Your task to perform on an android device: Do I have any events tomorrow? Image 0: 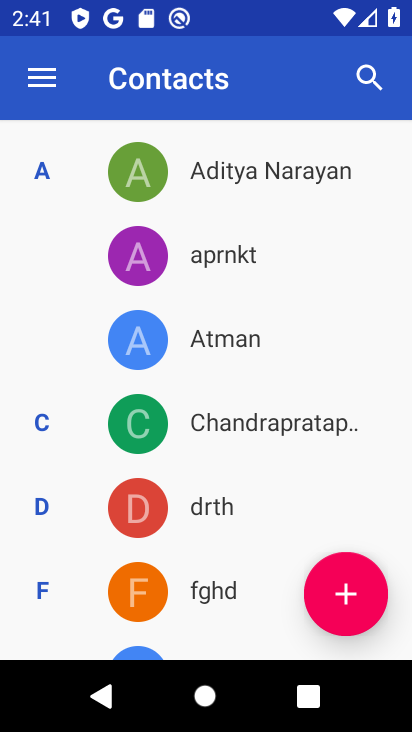
Step 0: press back button
Your task to perform on an android device: Do I have any events tomorrow? Image 1: 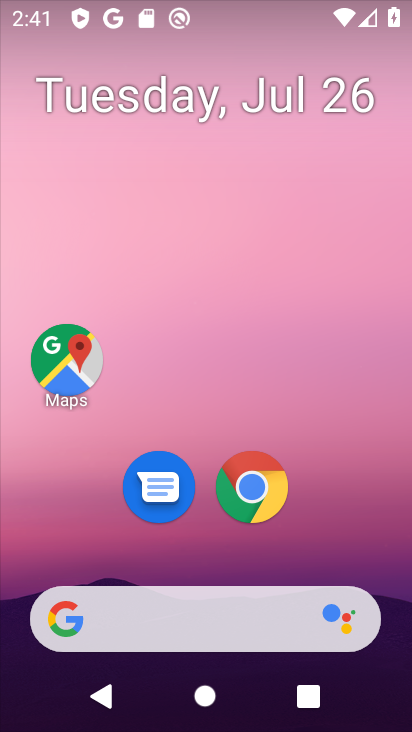
Step 1: drag from (205, 553) to (262, 18)
Your task to perform on an android device: Do I have any events tomorrow? Image 2: 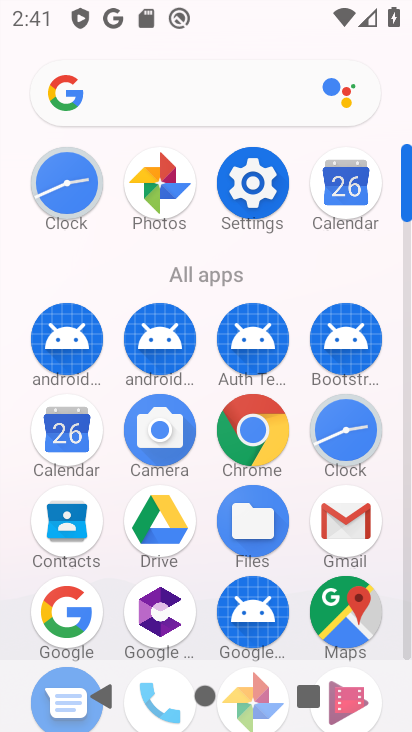
Step 2: click (61, 437)
Your task to perform on an android device: Do I have any events tomorrow? Image 3: 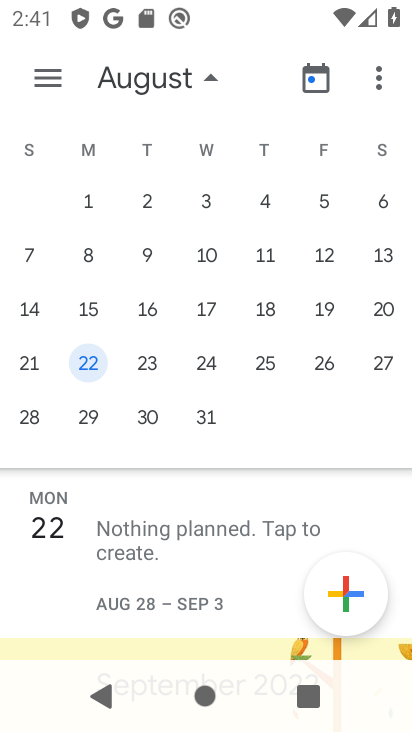
Step 3: drag from (36, 304) to (380, 301)
Your task to perform on an android device: Do I have any events tomorrow? Image 4: 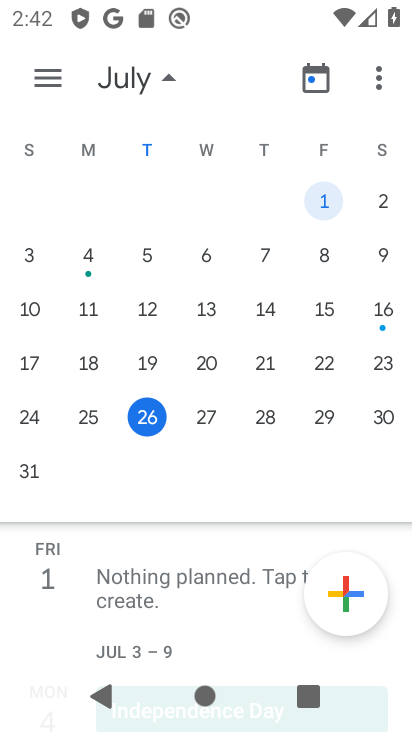
Step 4: click (147, 416)
Your task to perform on an android device: Do I have any events tomorrow? Image 5: 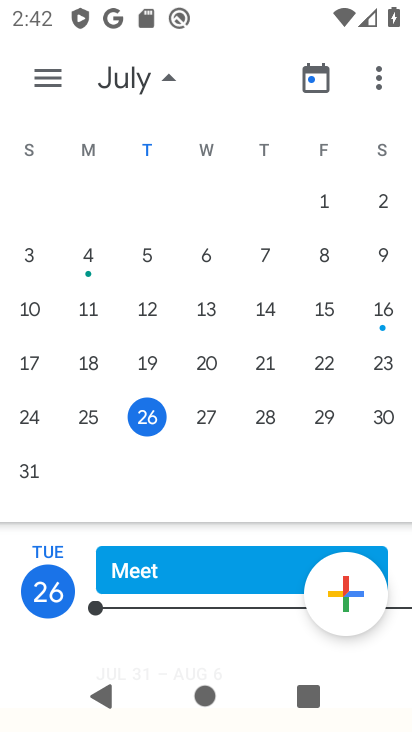
Step 5: task complete